Your task to perform on an android device: Go to internet settings Image 0: 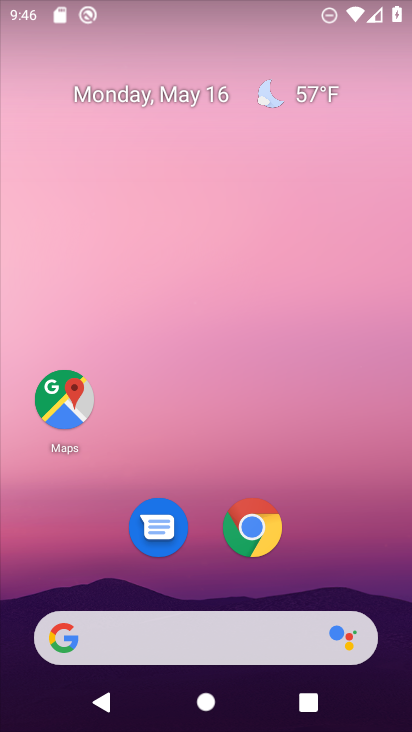
Step 0: drag from (397, 634) to (411, 159)
Your task to perform on an android device: Go to internet settings Image 1: 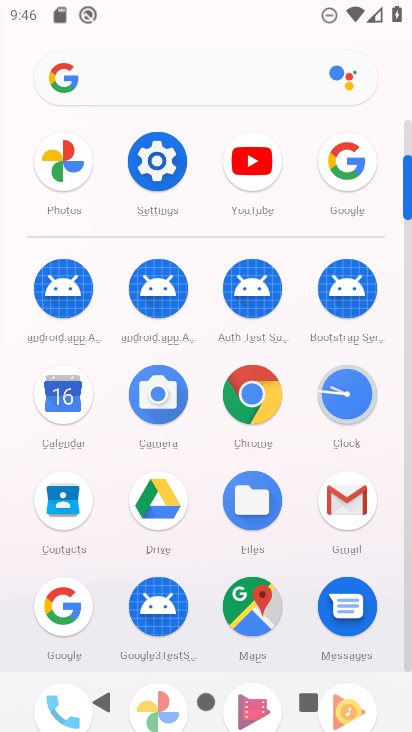
Step 1: click (145, 165)
Your task to perform on an android device: Go to internet settings Image 2: 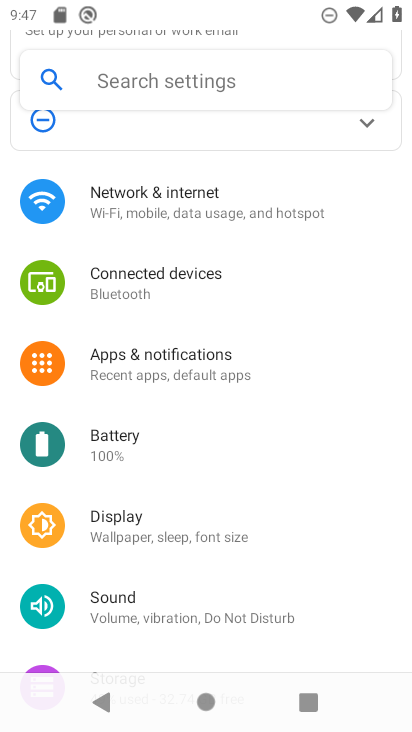
Step 2: click (130, 190)
Your task to perform on an android device: Go to internet settings Image 3: 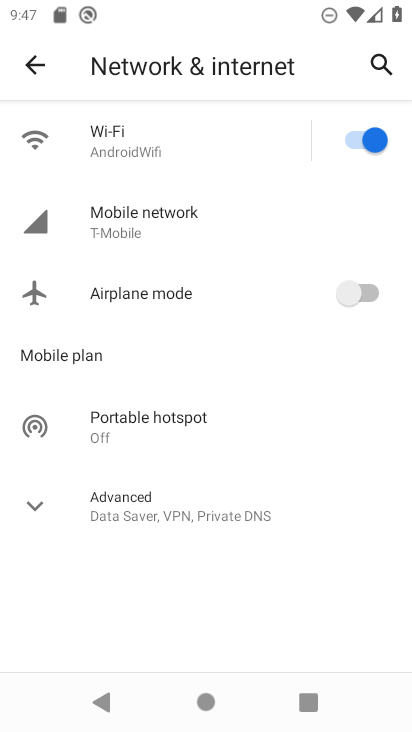
Step 3: task complete